Your task to perform on an android device: turn off wifi Image 0: 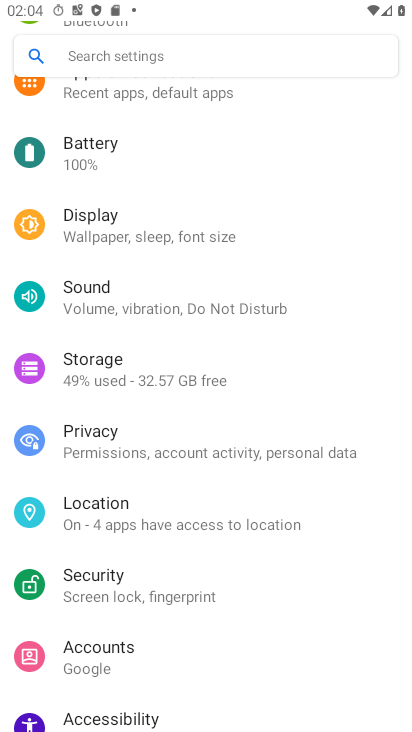
Step 0: drag from (338, 66) to (318, 552)
Your task to perform on an android device: turn off wifi Image 1: 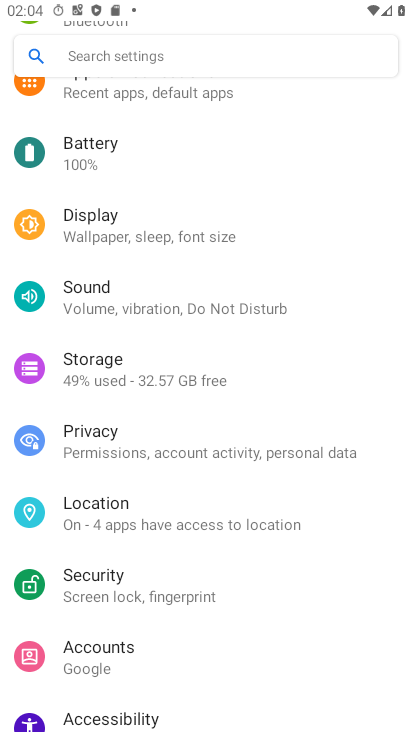
Step 1: drag from (347, 218) to (359, 587)
Your task to perform on an android device: turn off wifi Image 2: 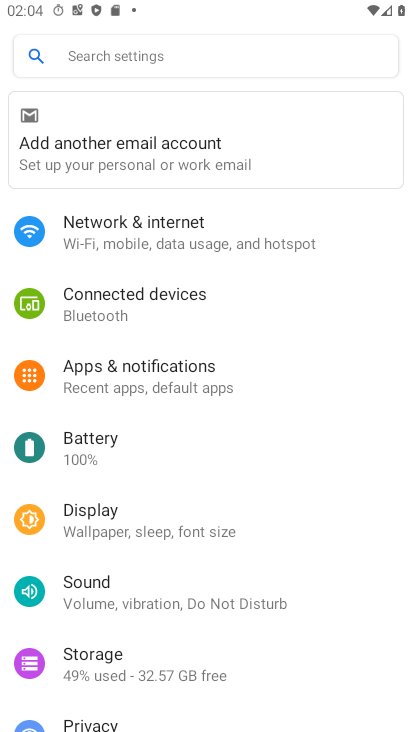
Step 2: click (220, 236)
Your task to perform on an android device: turn off wifi Image 3: 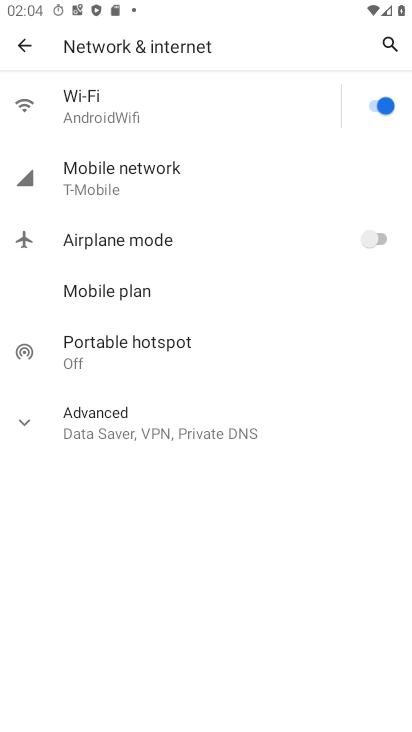
Step 3: click (371, 107)
Your task to perform on an android device: turn off wifi Image 4: 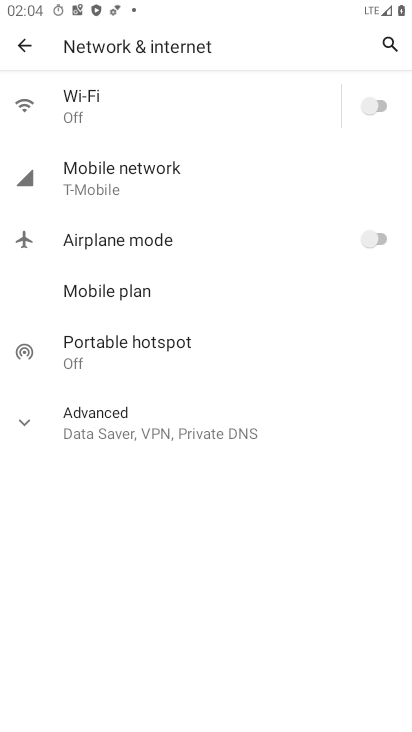
Step 4: task complete